Your task to perform on an android device: Open Amazon Image 0: 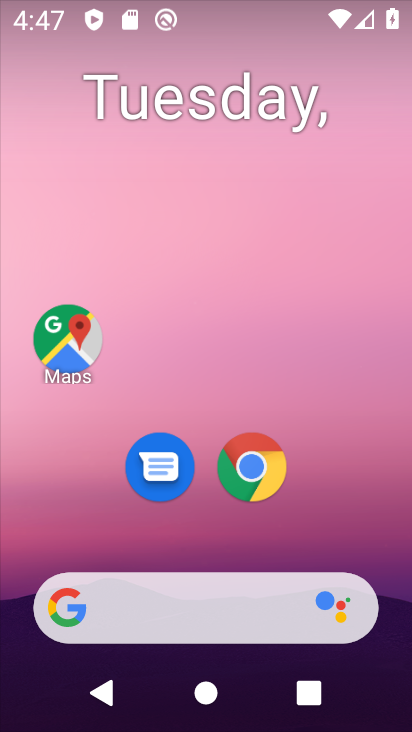
Step 0: click (242, 487)
Your task to perform on an android device: Open Amazon Image 1: 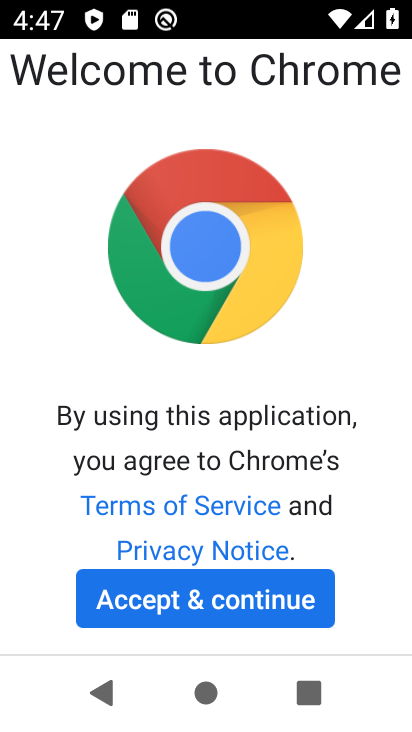
Step 1: click (222, 605)
Your task to perform on an android device: Open Amazon Image 2: 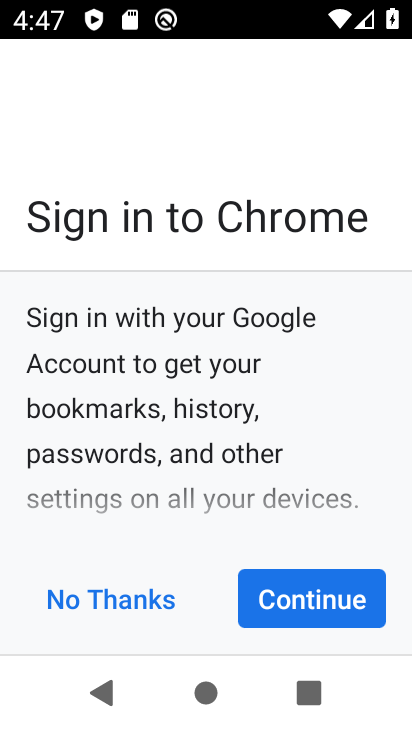
Step 2: click (288, 617)
Your task to perform on an android device: Open Amazon Image 3: 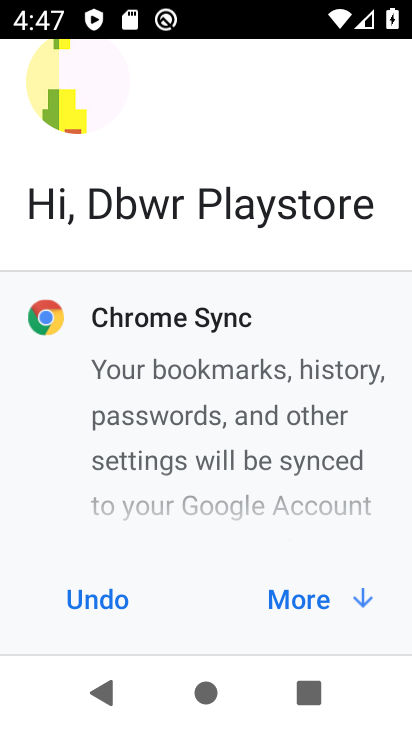
Step 3: click (296, 610)
Your task to perform on an android device: Open Amazon Image 4: 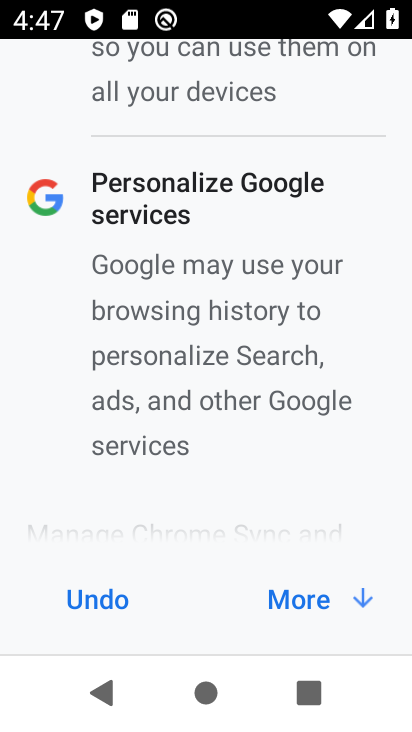
Step 4: click (304, 603)
Your task to perform on an android device: Open Amazon Image 5: 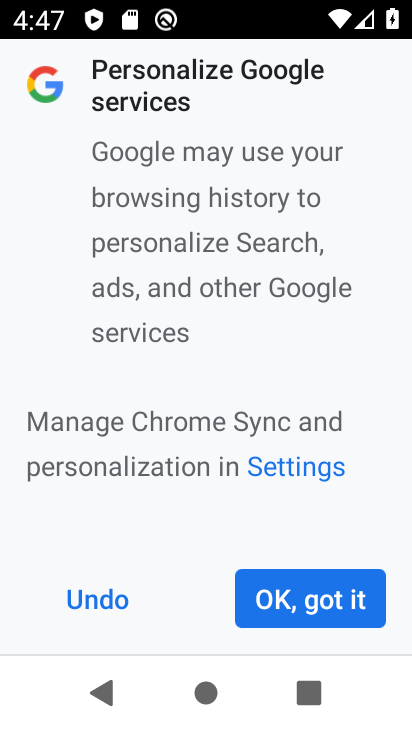
Step 5: click (304, 603)
Your task to perform on an android device: Open Amazon Image 6: 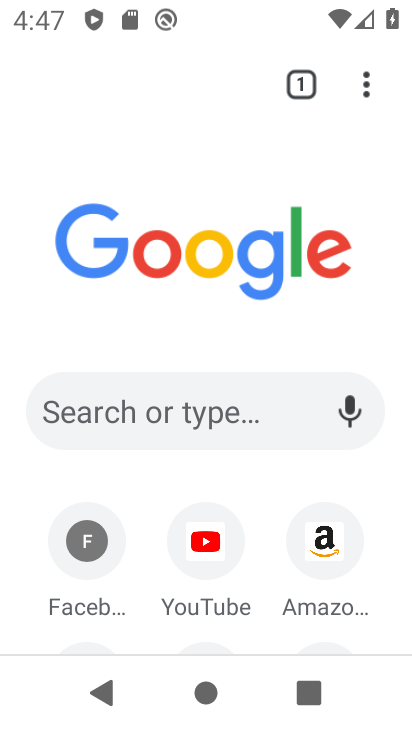
Step 6: click (226, 413)
Your task to perform on an android device: Open Amazon Image 7: 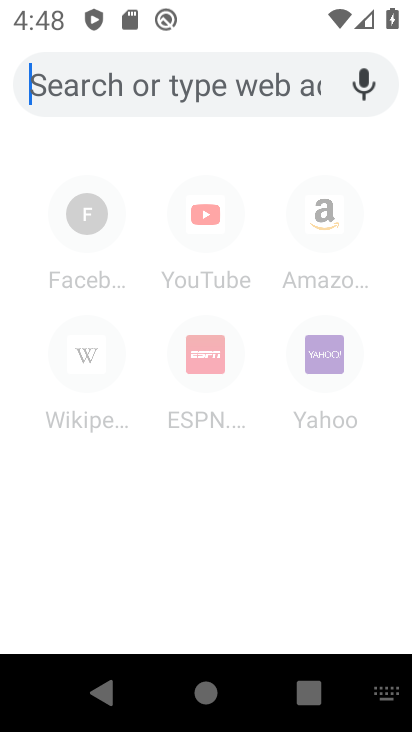
Step 7: click (320, 220)
Your task to perform on an android device: Open Amazon Image 8: 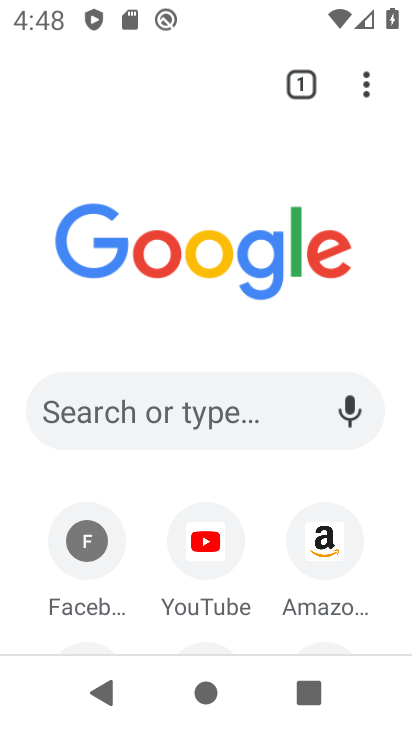
Step 8: click (311, 551)
Your task to perform on an android device: Open Amazon Image 9: 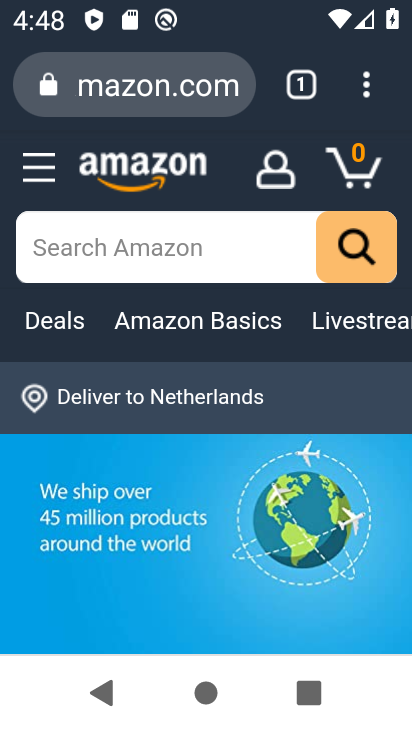
Step 9: task complete